Your task to perform on an android device: Open privacy settings Image 0: 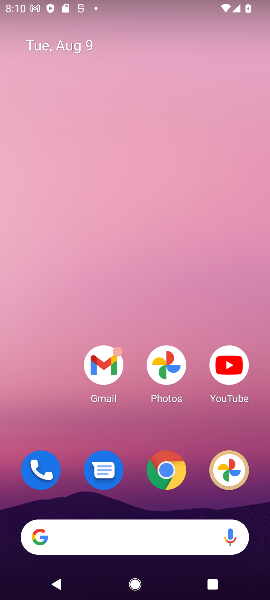
Step 0: drag from (137, 485) to (125, 15)
Your task to perform on an android device: Open privacy settings Image 1: 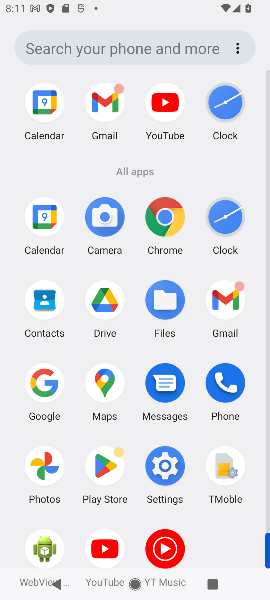
Step 1: click (168, 476)
Your task to perform on an android device: Open privacy settings Image 2: 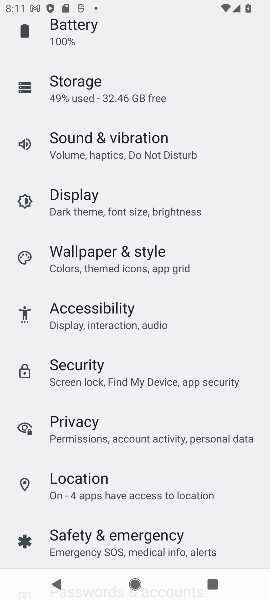
Step 2: click (113, 433)
Your task to perform on an android device: Open privacy settings Image 3: 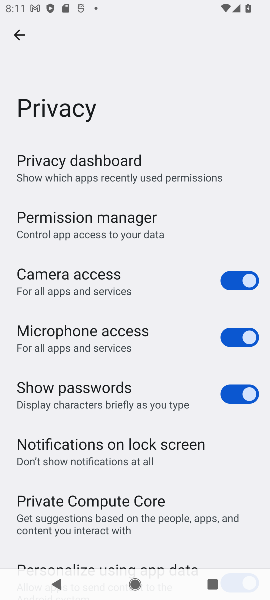
Step 3: task complete